Your task to perform on an android device: Toggle the flashlight Image 0: 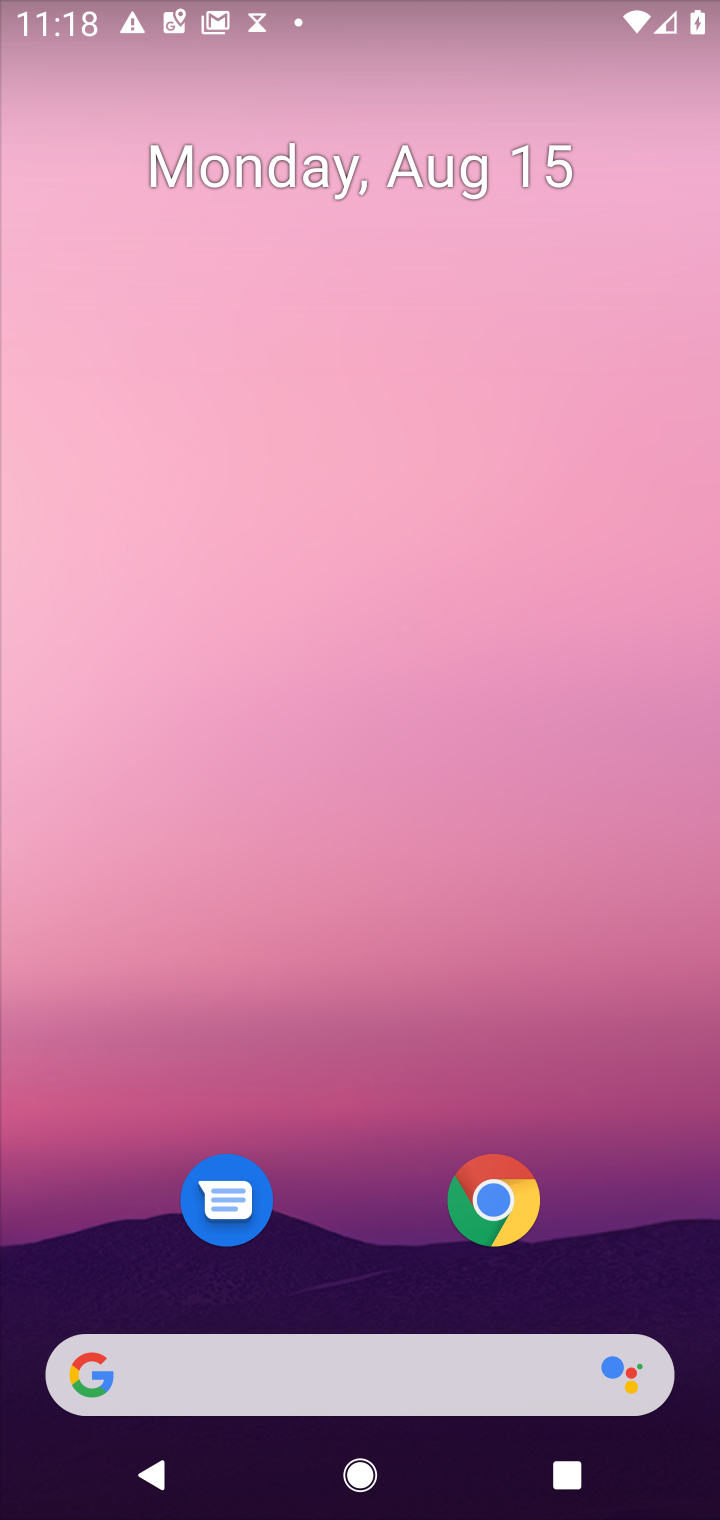
Step 0: drag from (337, 1260) to (265, 422)
Your task to perform on an android device: Toggle the flashlight Image 1: 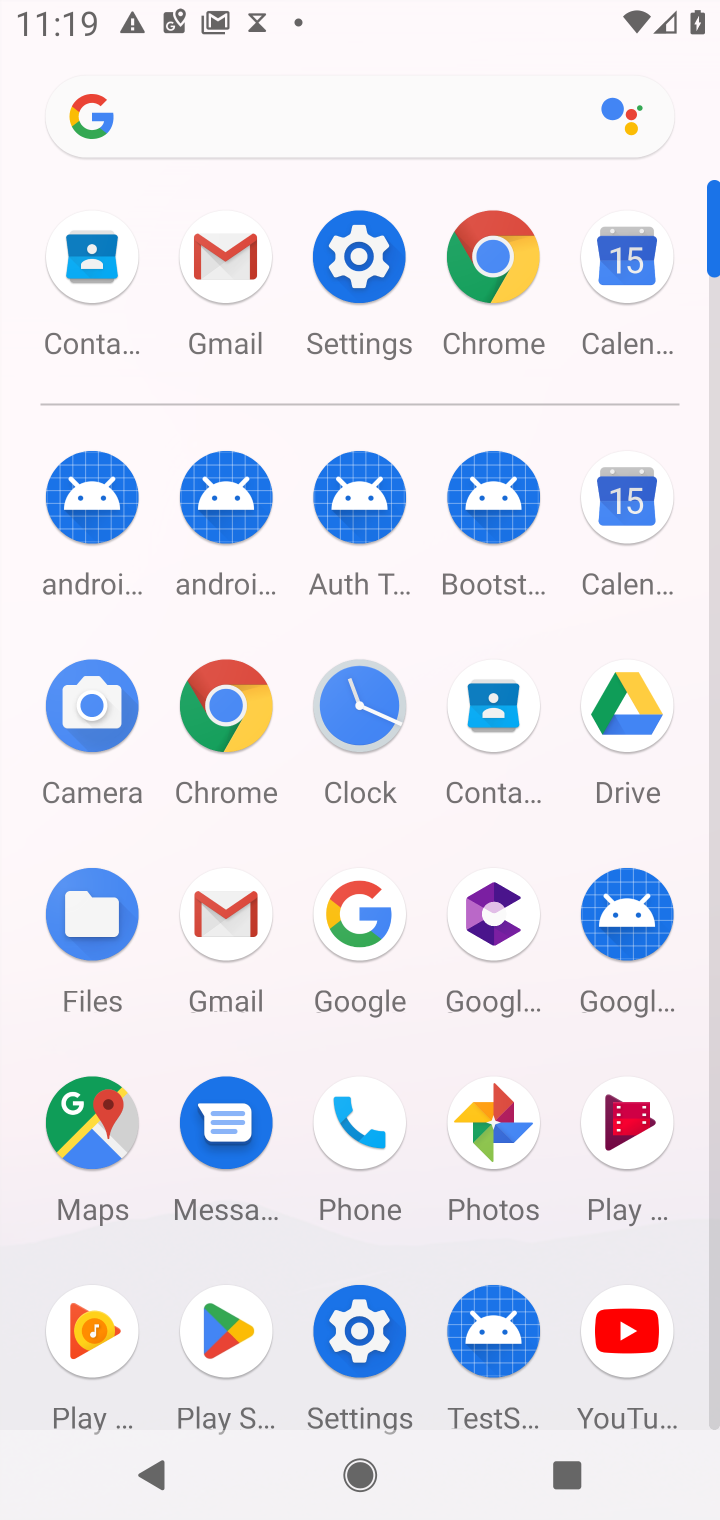
Step 1: click (348, 292)
Your task to perform on an android device: Toggle the flashlight Image 2: 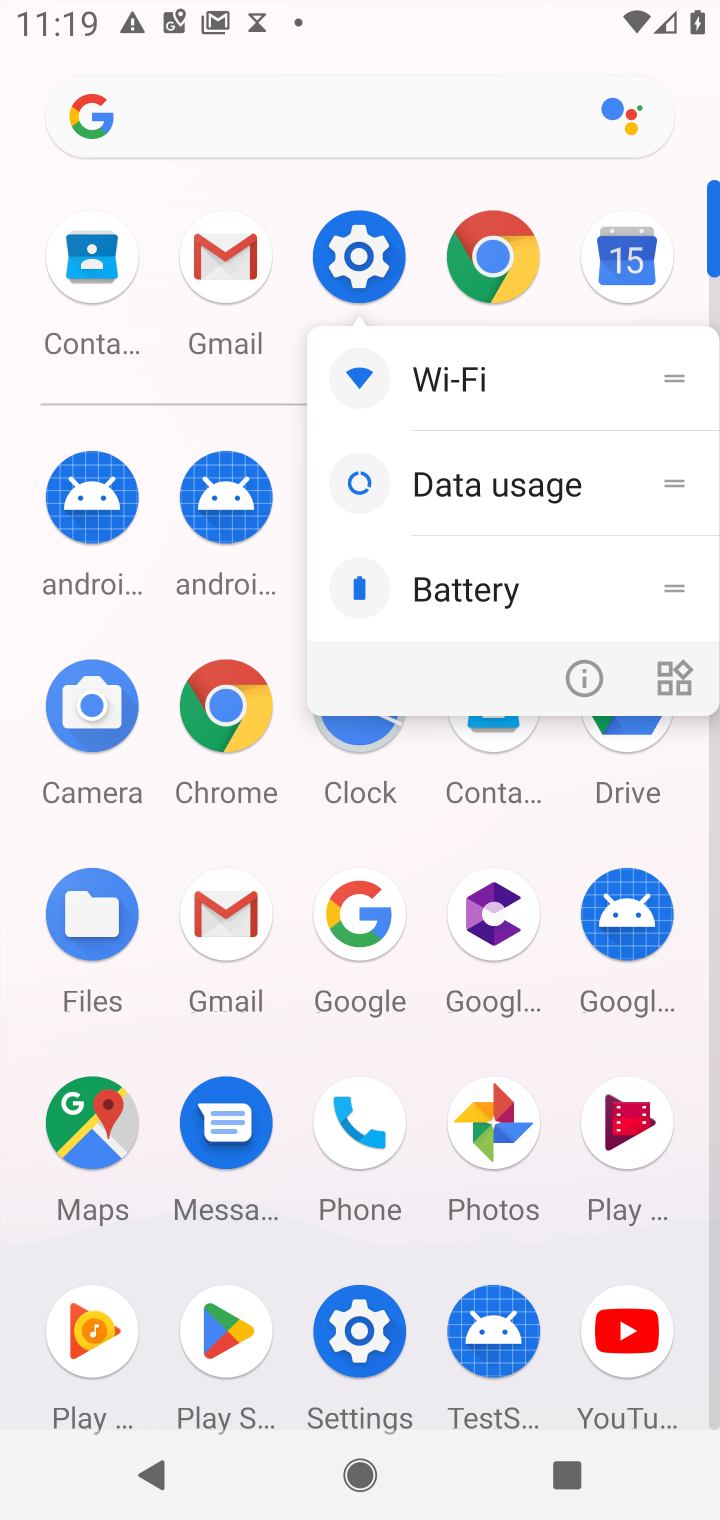
Step 2: click (368, 280)
Your task to perform on an android device: Toggle the flashlight Image 3: 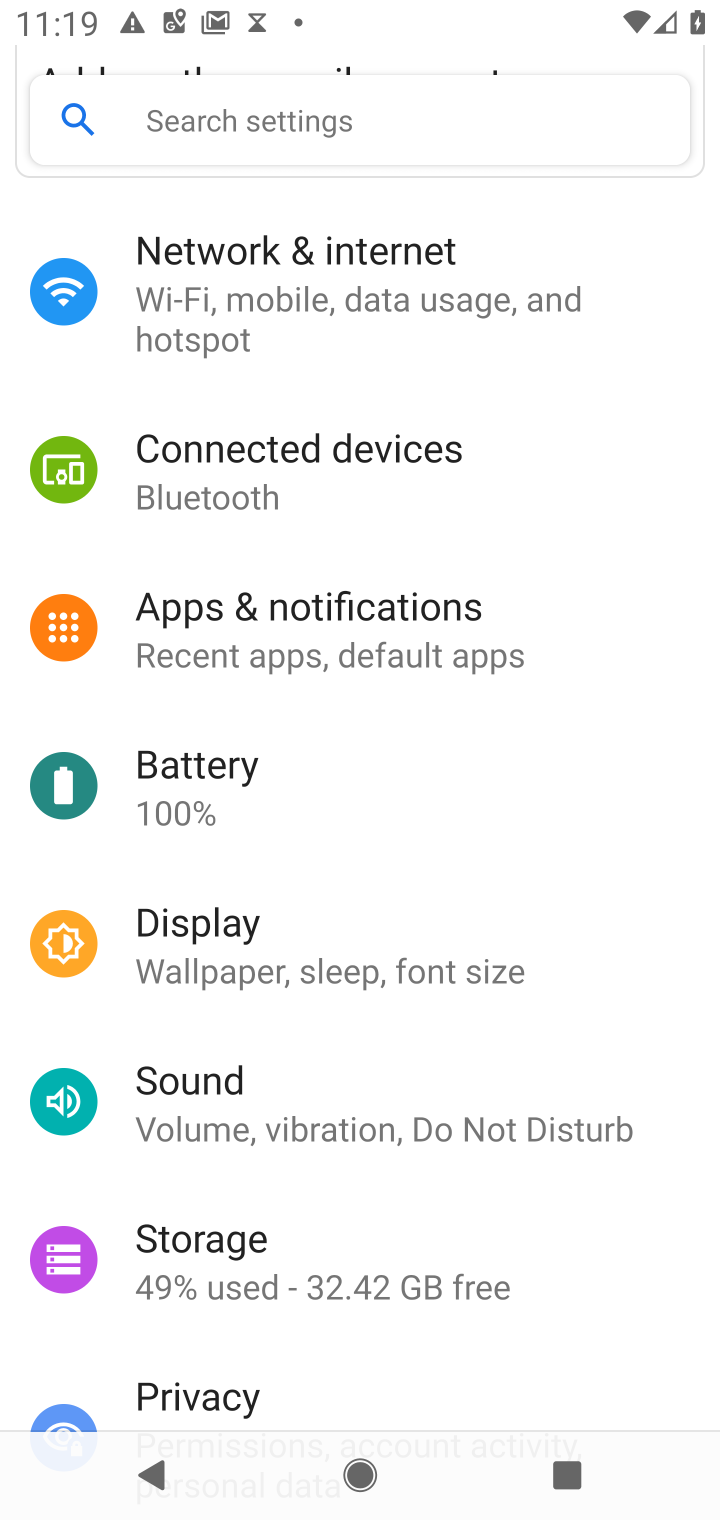
Step 3: task complete